Your task to perform on an android device: Go to Amazon Image 0: 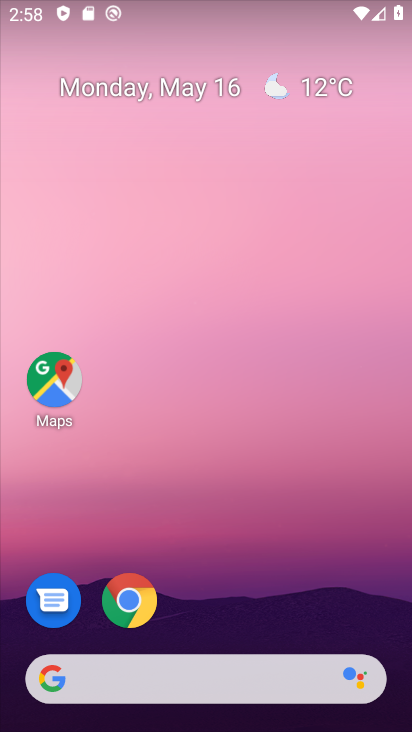
Step 0: drag from (219, 629) to (145, 13)
Your task to perform on an android device: Go to Amazon Image 1: 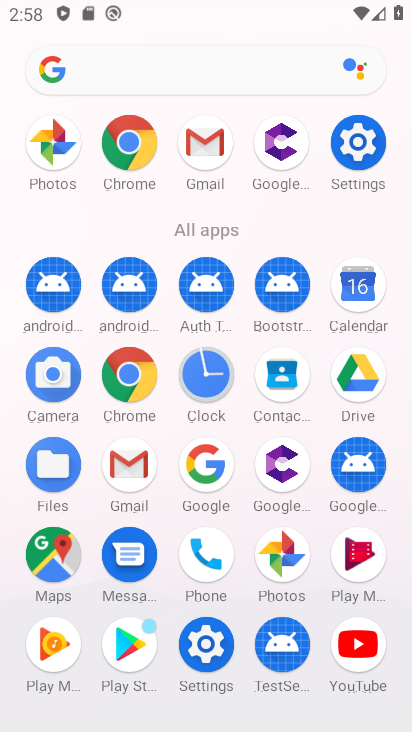
Step 1: click (124, 156)
Your task to perform on an android device: Go to Amazon Image 2: 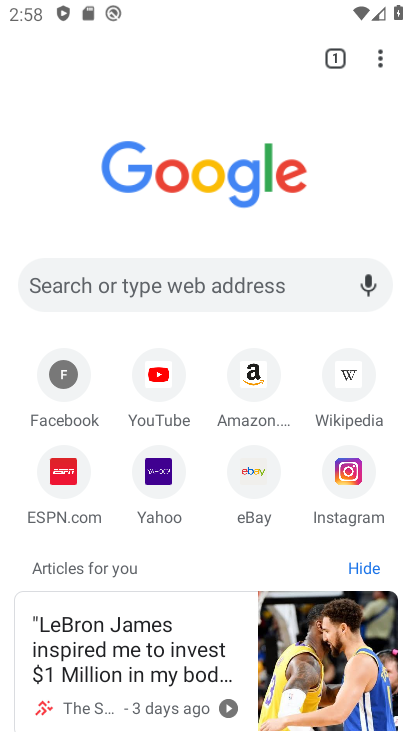
Step 2: click (262, 378)
Your task to perform on an android device: Go to Amazon Image 3: 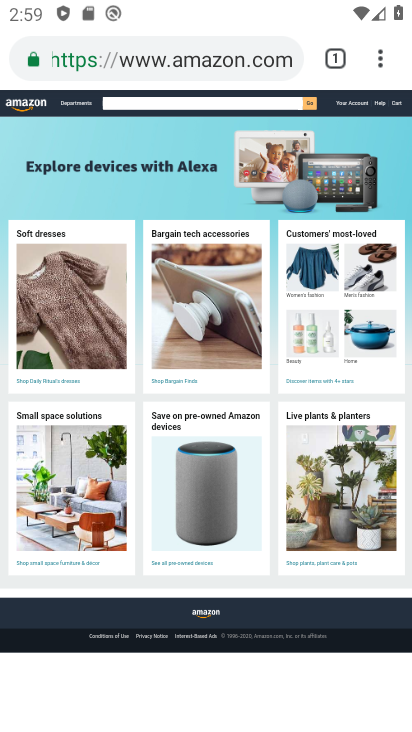
Step 3: task complete